Your task to perform on an android device: add a label to a message in the gmail app Image 0: 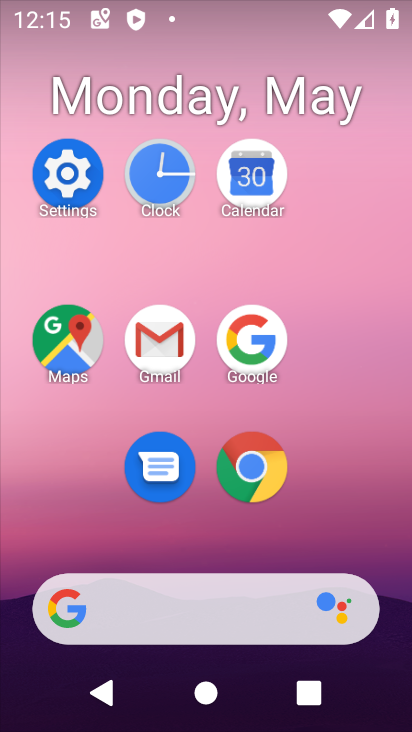
Step 0: click (183, 358)
Your task to perform on an android device: add a label to a message in the gmail app Image 1: 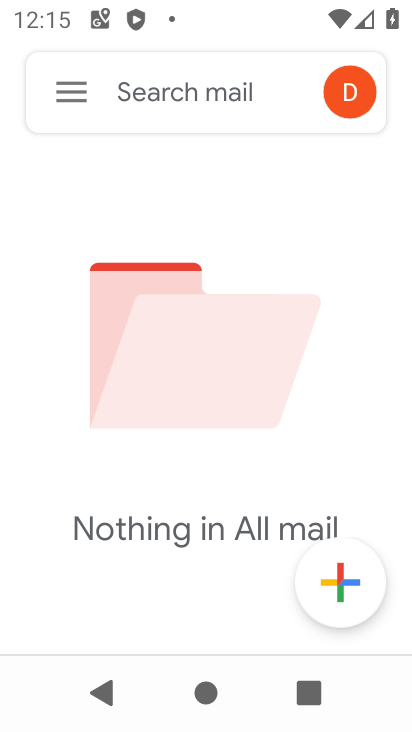
Step 1: click (51, 83)
Your task to perform on an android device: add a label to a message in the gmail app Image 2: 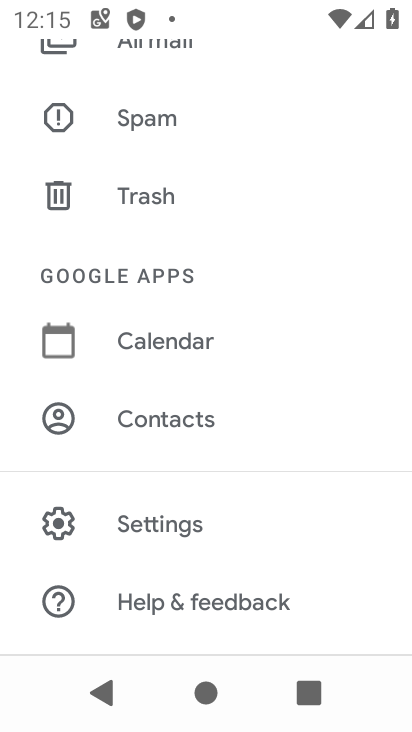
Step 2: drag from (254, 536) to (219, 166)
Your task to perform on an android device: add a label to a message in the gmail app Image 3: 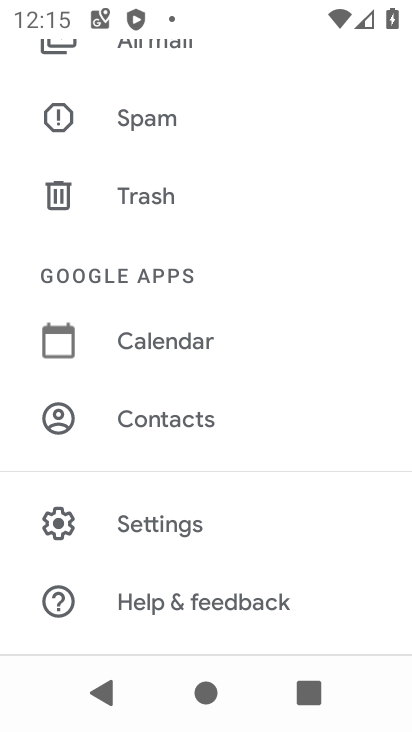
Step 3: drag from (245, 138) to (268, 453)
Your task to perform on an android device: add a label to a message in the gmail app Image 4: 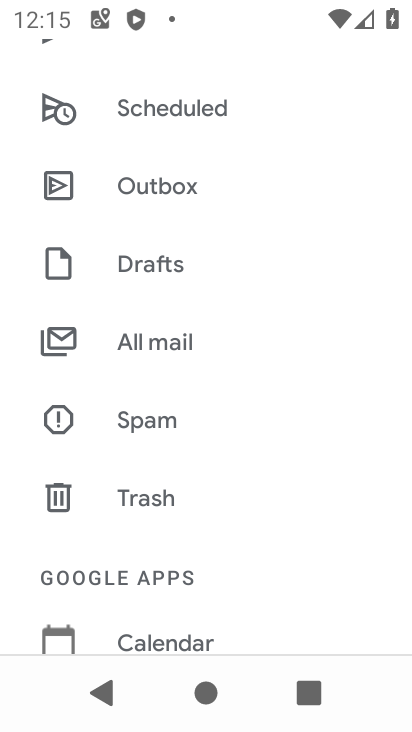
Step 4: click (224, 344)
Your task to perform on an android device: add a label to a message in the gmail app Image 5: 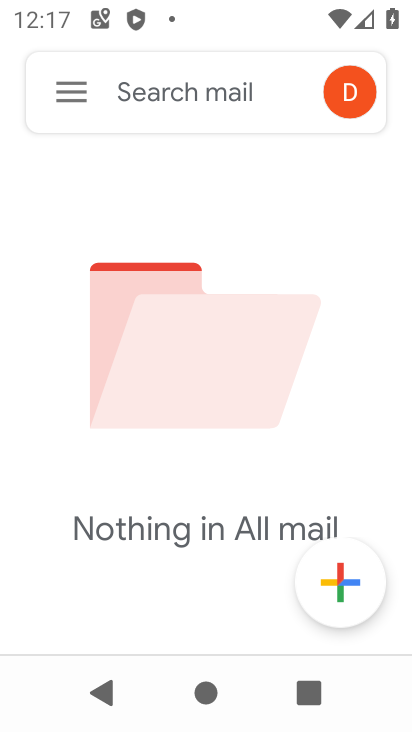
Step 5: task complete